Your task to perform on an android device: change text size in settings app Image 0: 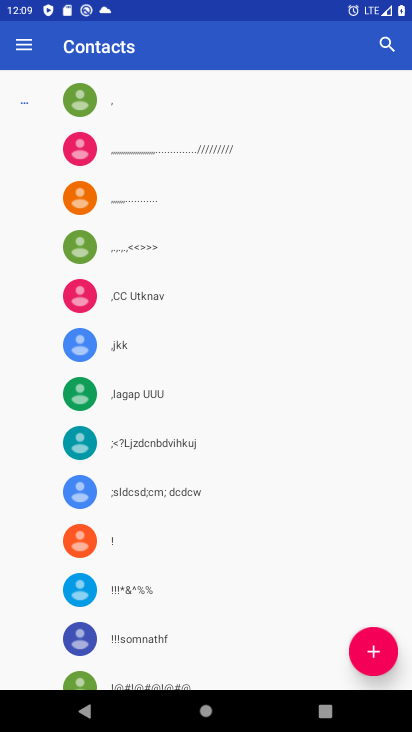
Step 0: press home button
Your task to perform on an android device: change text size in settings app Image 1: 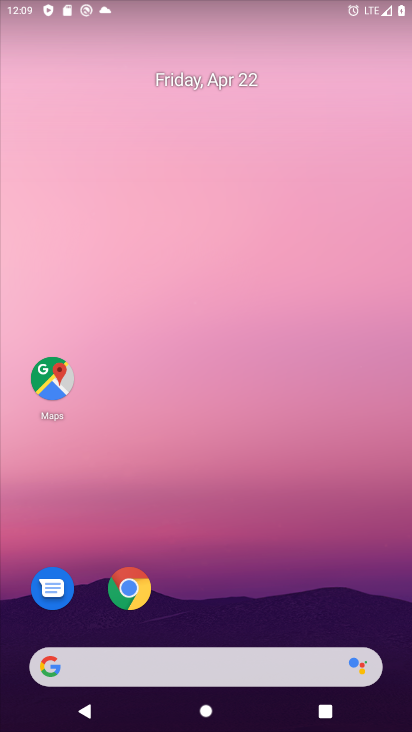
Step 1: drag from (246, 681) to (281, 215)
Your task to perform on an android device: change text size in settings app Image 2: 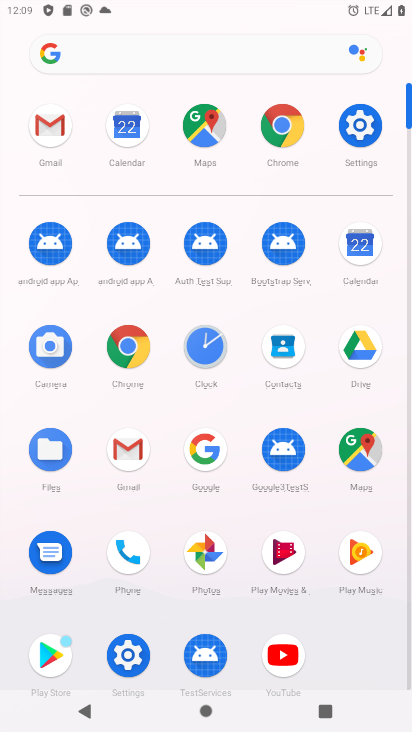
Step 2: click (124, 638)
Your task to perform on an android device: change text size in settings app Image 3: 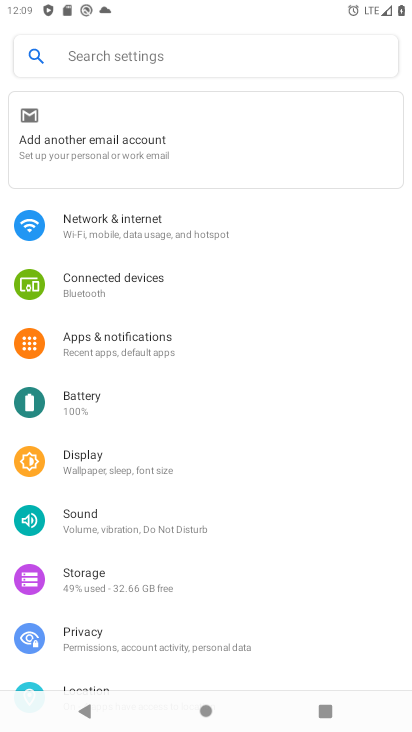
Step 3: click (159, 60)
Your task to perform on an android device: change text size in settings app Image 4: 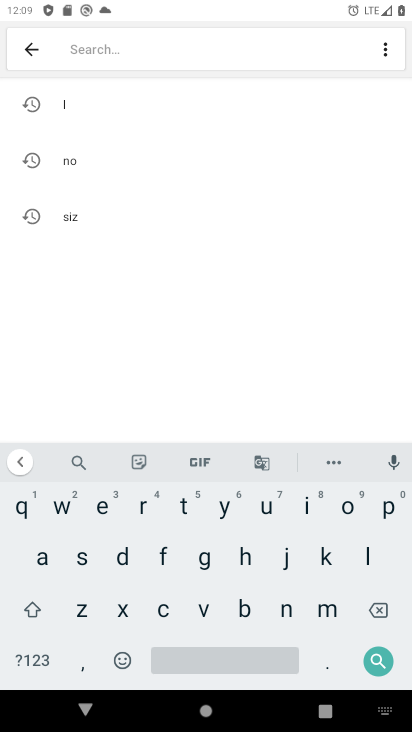
Step 4: click (78, 555)
Your task to perform on an android device: change text size in settings app Image 5: 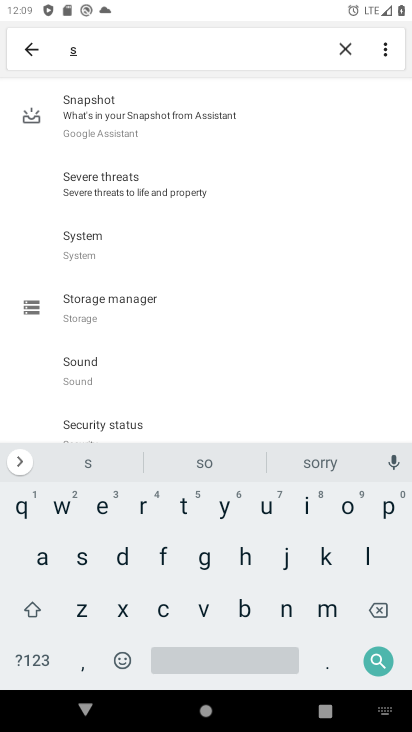
Step 5: click (304, 507)
Your task to perform on an android device: change text size in settings app Image 6: 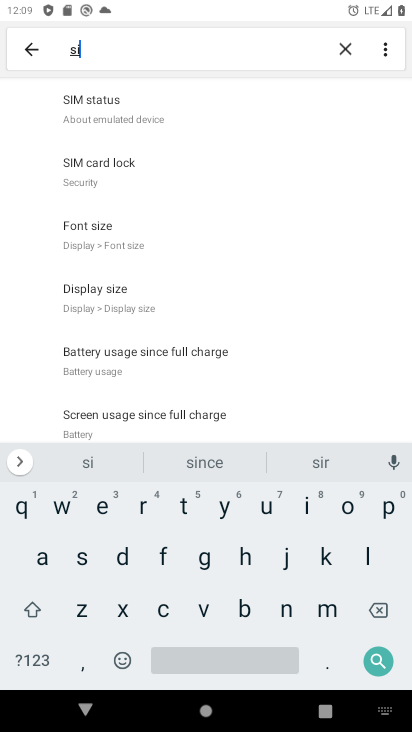
Step 6: click (81, 610)
Your task to perform on an android device: change text size in settings app Image 7: 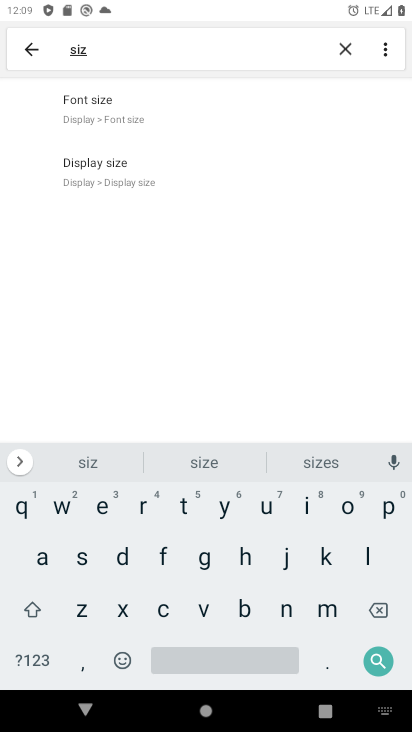
Step 7: click (193, 111)
Your task to perform on an android device: change text size in settings app Image 8: 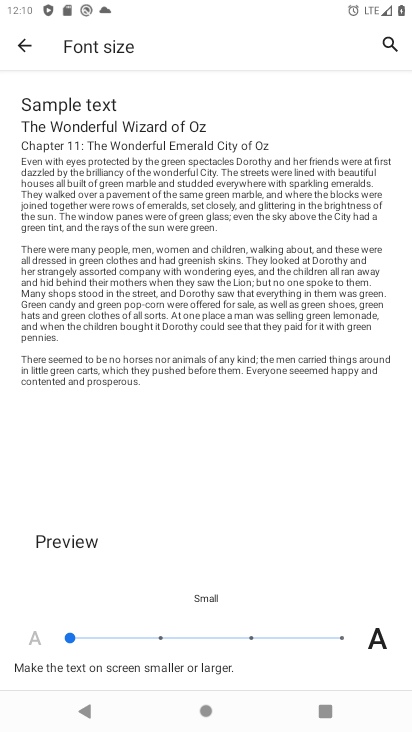
Step 8: click (137, 633)
Your task to perform on an android device: change text size in settings app Image 9: 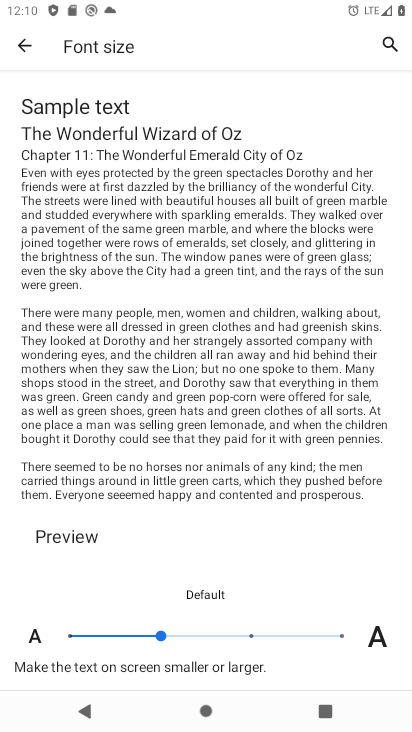
Step 9: task complete